Your task to perform on an android device: change keyboard looks Image 0: 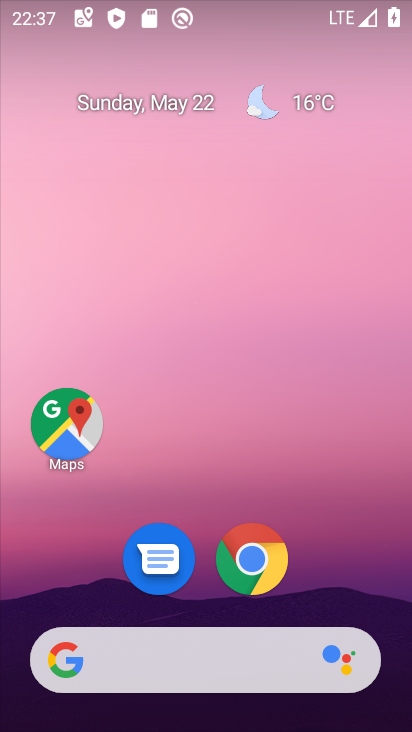
Step 0: drag from (264, 692) to (274, 187)
Your task to perform on an android device: change keyboard looks Image 1: 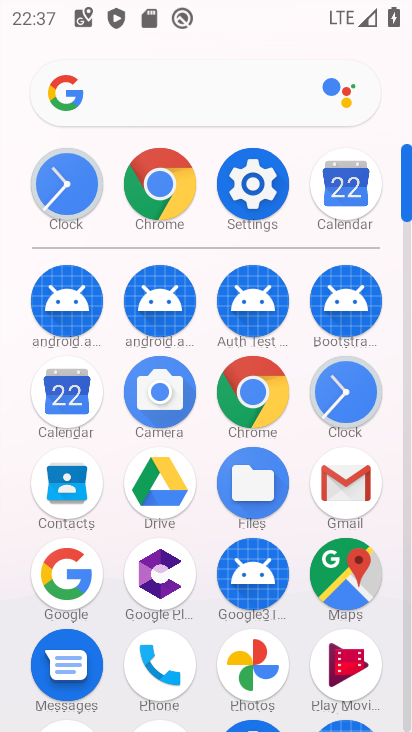
Step 1: click (266, 218)
Your task to perform on an android device: change keyboard looks Image 2: 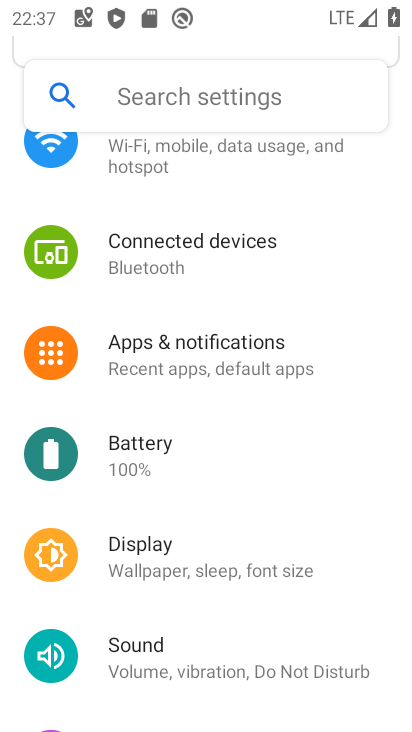
Step 2: click (205, 105)
Your task to perform on an android device: change keyboard looks Image 3: 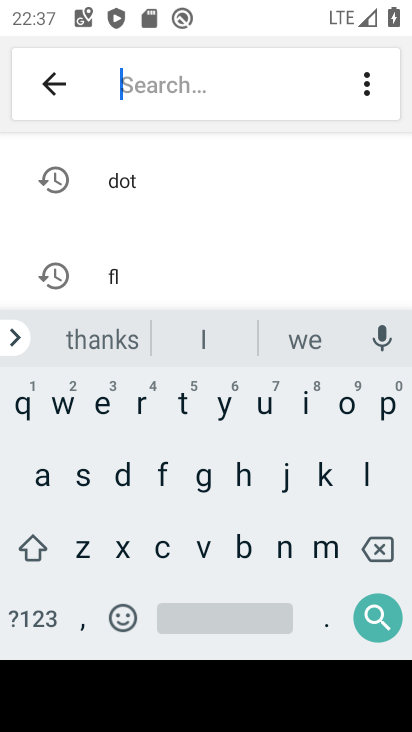
Step 3: click (321, 473)
Your task to perform on an android device: change keyboard looks Image 4: 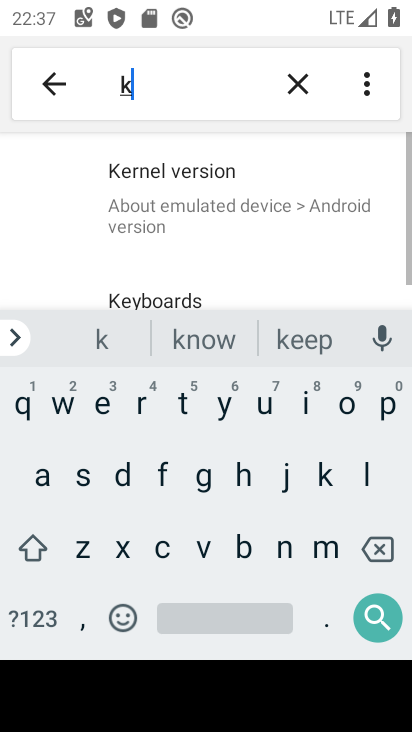
Step 4: click (92, 407)
Your task to perform on an android device: change keyboard looks Image 5: 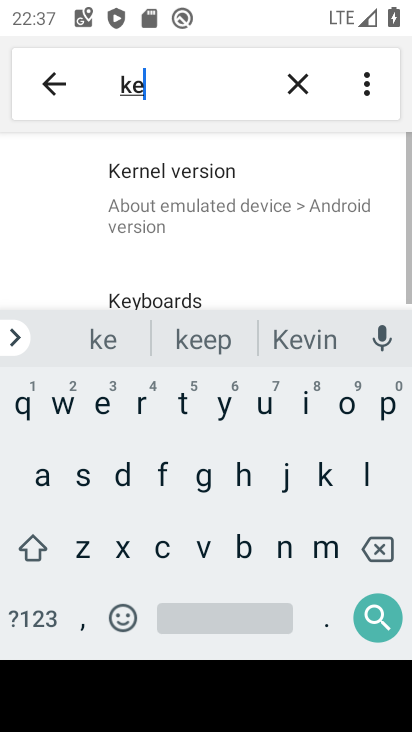
Step 5: click (221, 413)
Your task to perform on an android device: change keyboard looks Image 6: 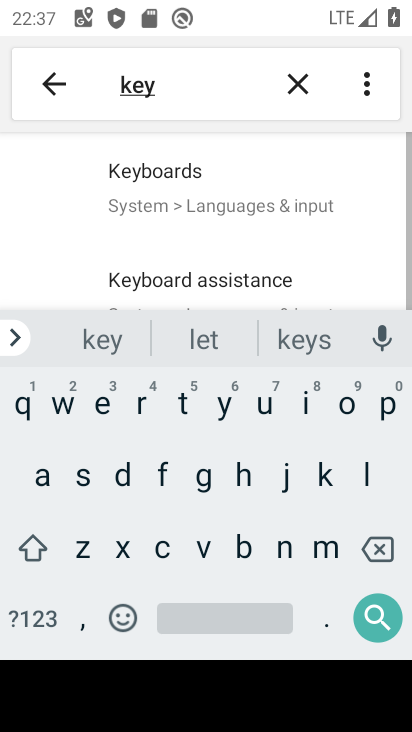
Step 6: click (193, 205)
Your task to perform on an android device: change keyboard looks Image 7: 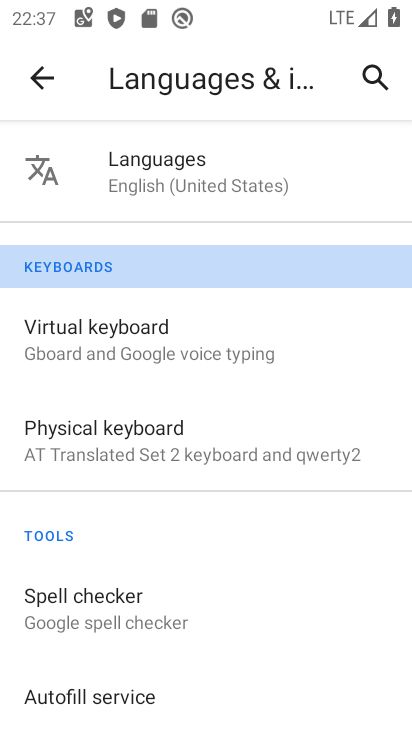
Step 7: click (178, 351)
Your task to perform on an android device: change keyboard looks Image 8: 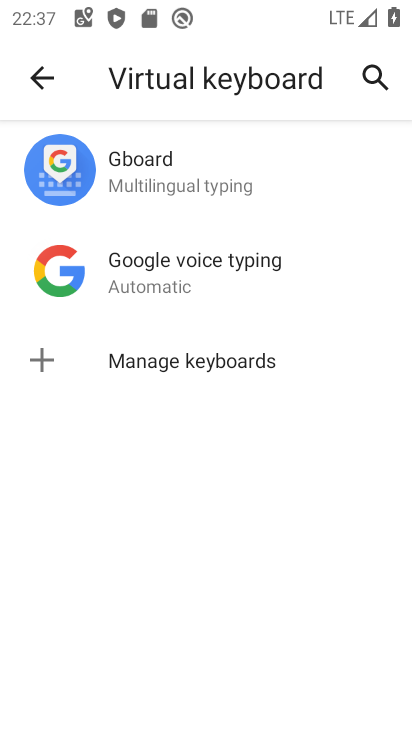
Step 8: click (208, 200)
Your task to perform on an android device: change keyboard looks Image 9: 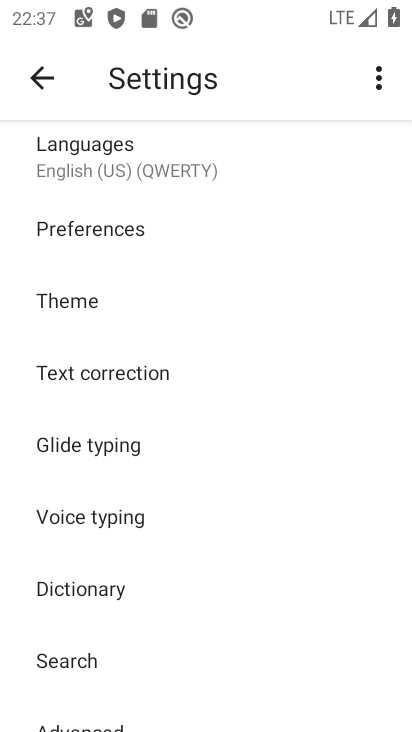
Step 9: click (89, 328)
Your task to perform on an android device: change keyboard looks Image 10: 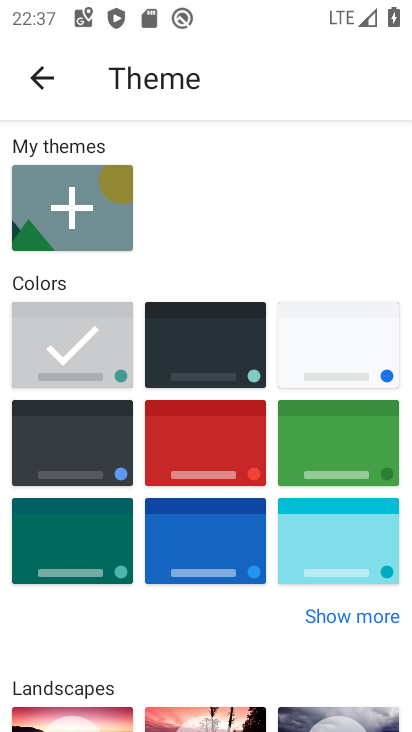
Step 10: click (195, 367)
Your task to perform on an android device: change keyboard looks Image 11: 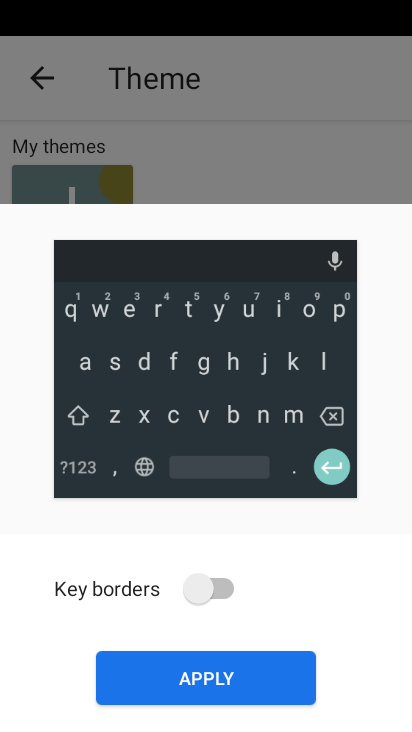
Step 11: click (210, 592)
Your task to perform on an android device: change keyboard looks Image 12: 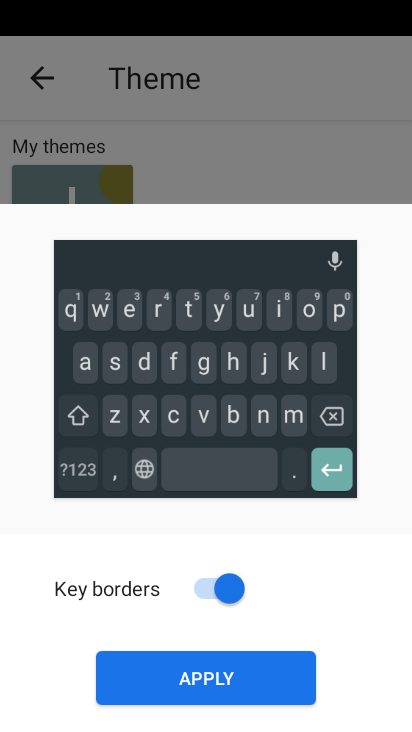
Step 12: click (209, 678)
Your task to perform on an android device: change keyboard looks Image 13: 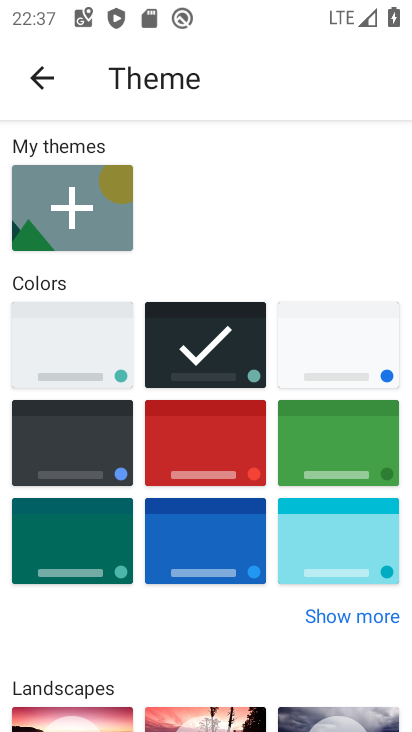
Step 13: task complete